Your task to perform on an android device: add a contact in the contacts app Image 0: 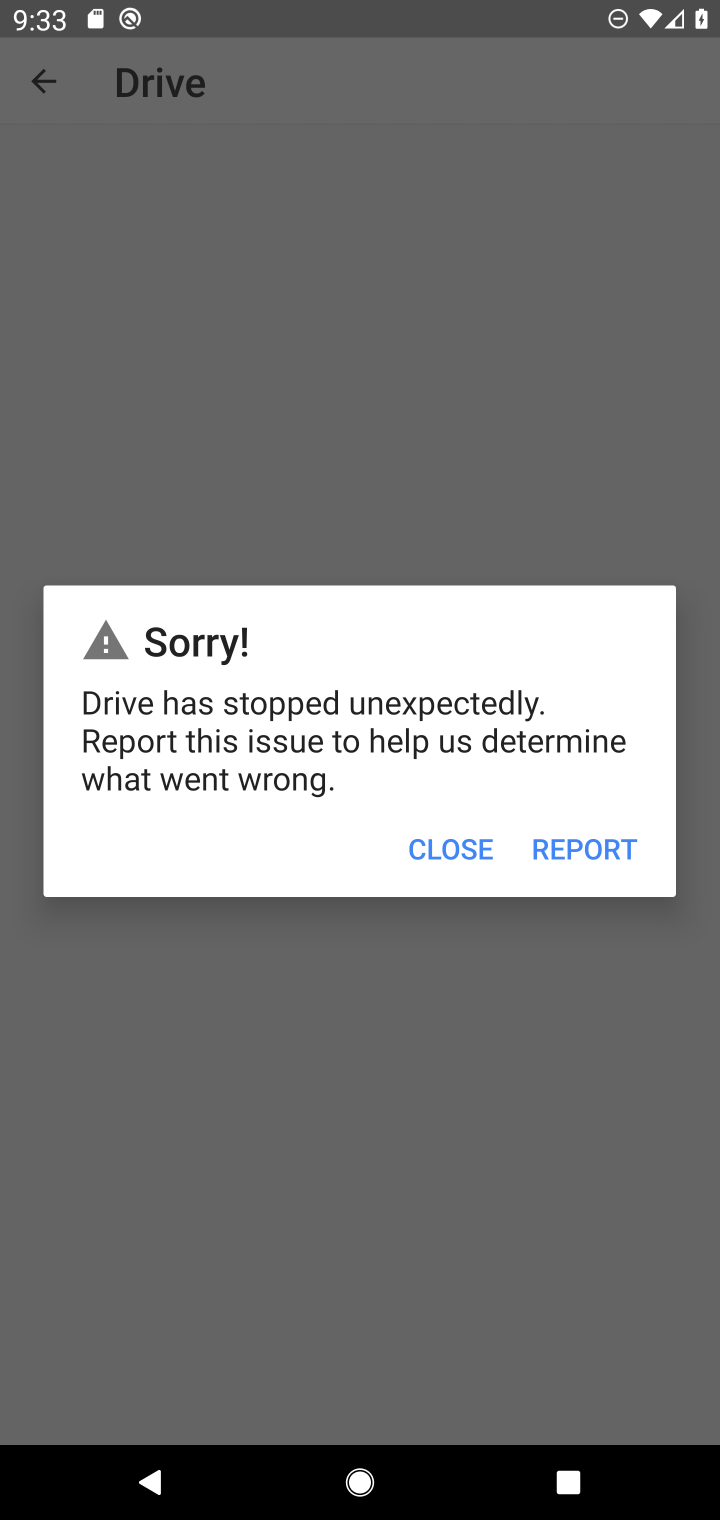
Step 0: press home button
Your task to perform on an android device: add a contact in the contacts app Image 1: 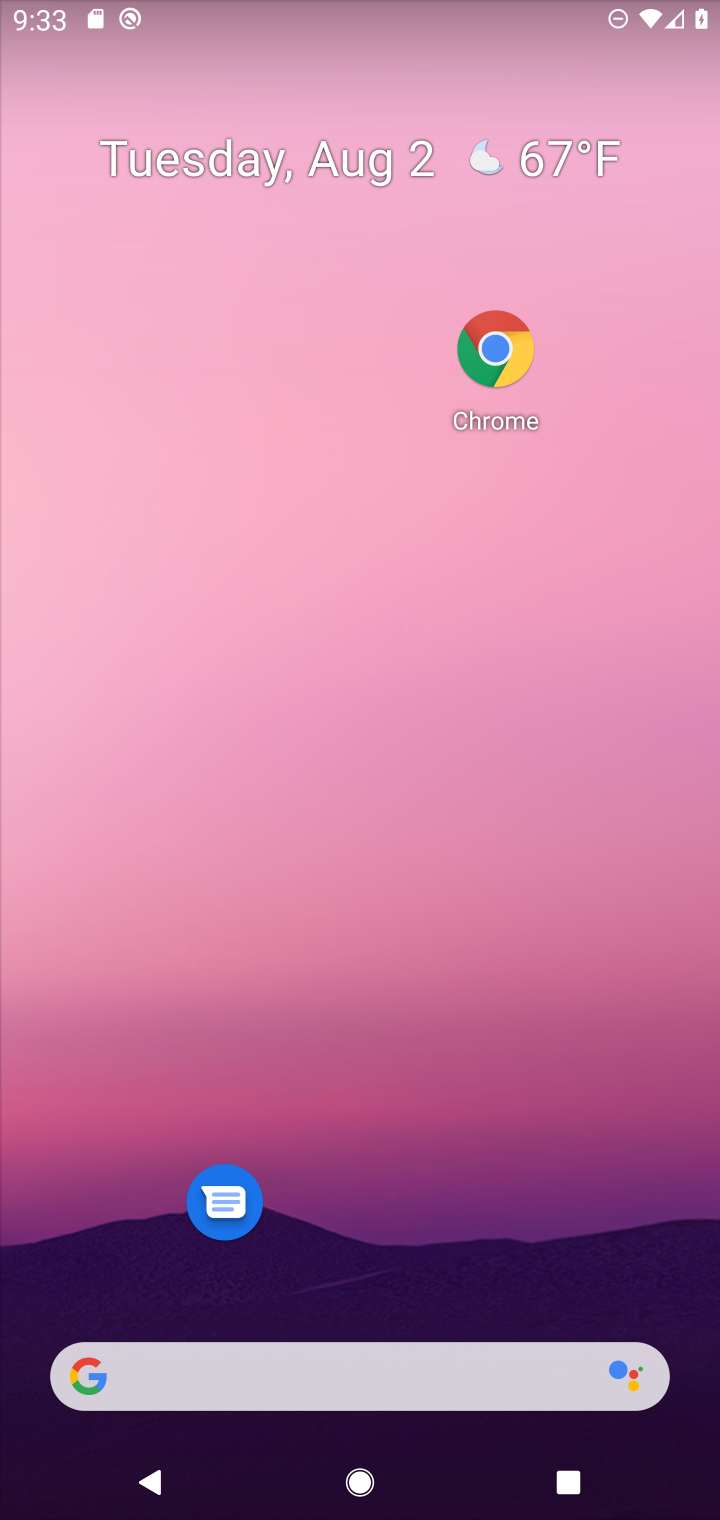
Step 1: drag from (426, 1046) to (417, 16)
Your task to perform on an android device: add a contact in the contacts app Image 2: 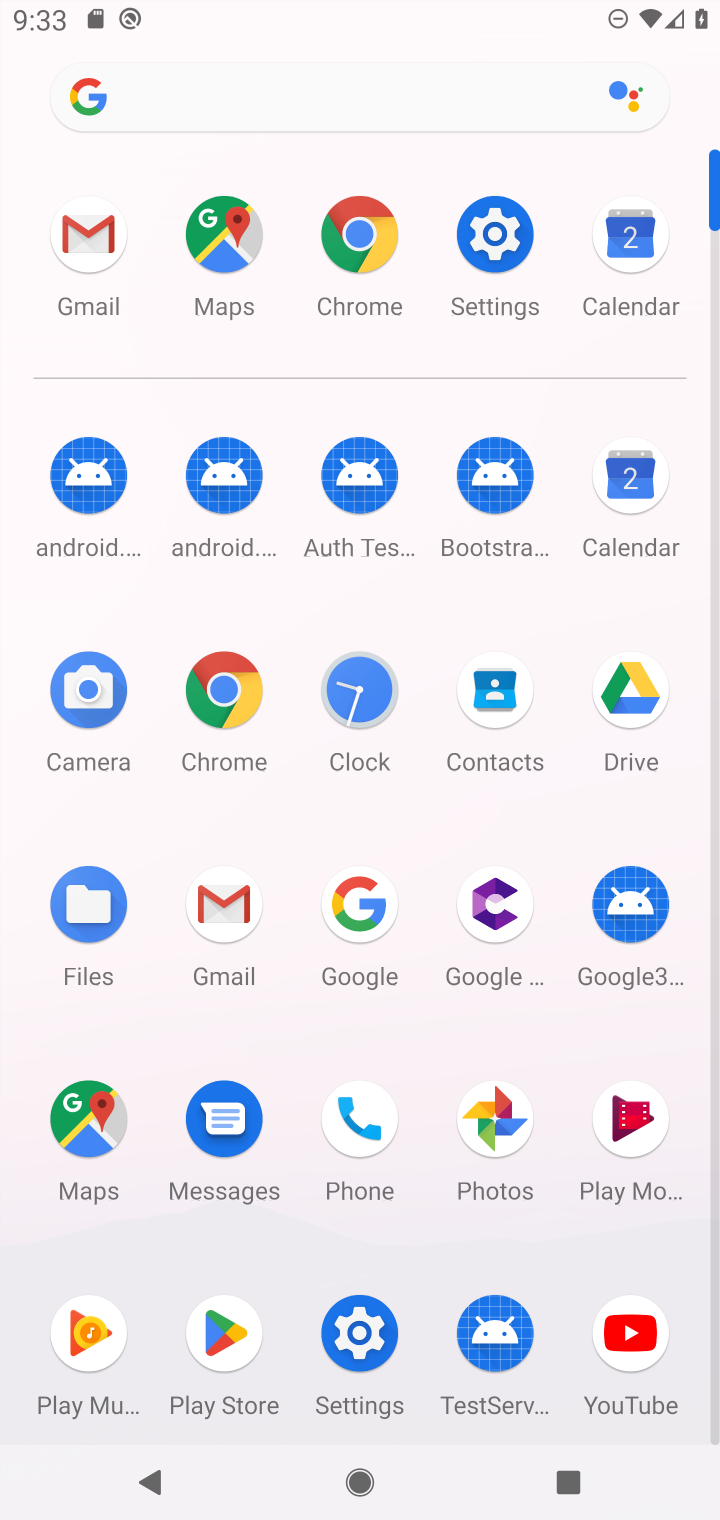
Step 2: click (496, 703)
Your task to perform on an android device: add a contact in the contacts app Image 3: 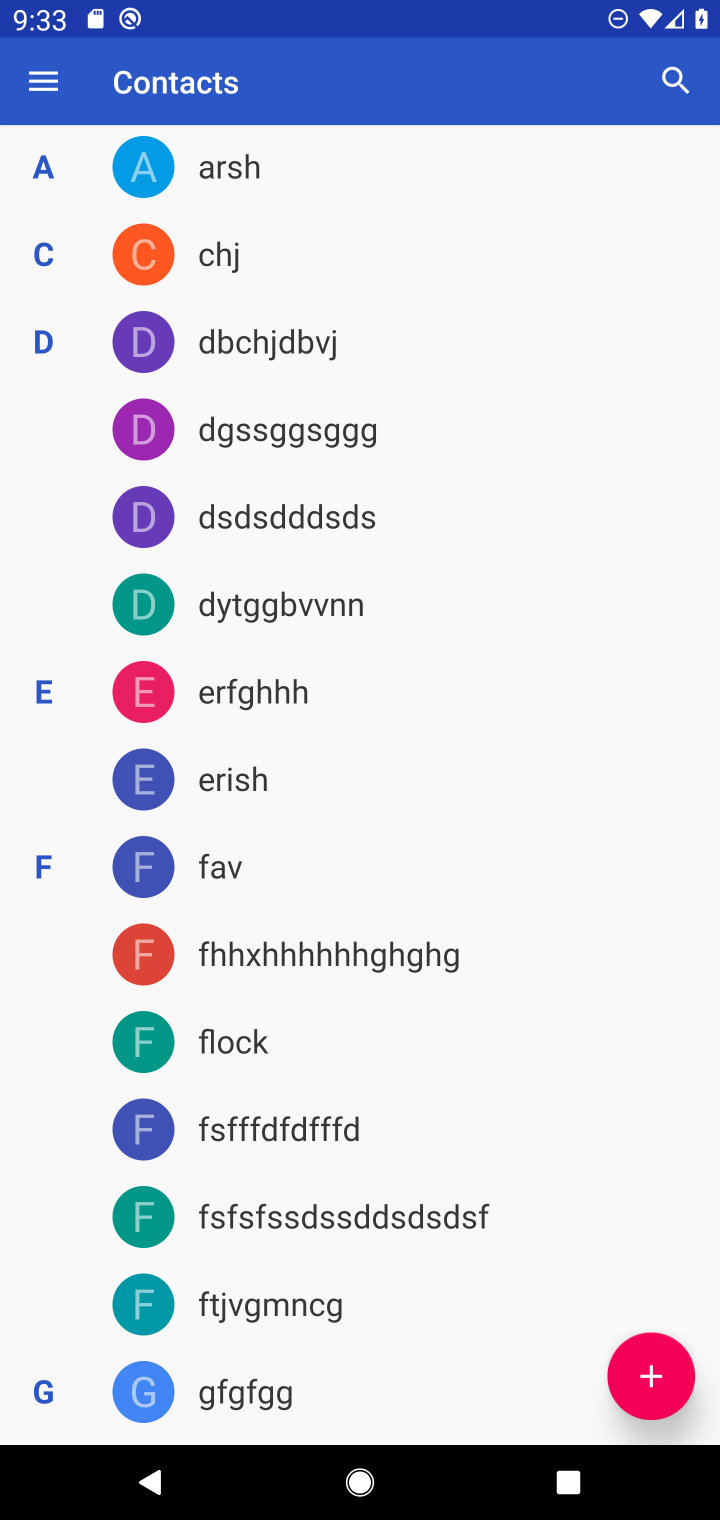
Step 3: click (639, 1377)
Your task to perform on an android device: add a contact in the contacts app Image 4: 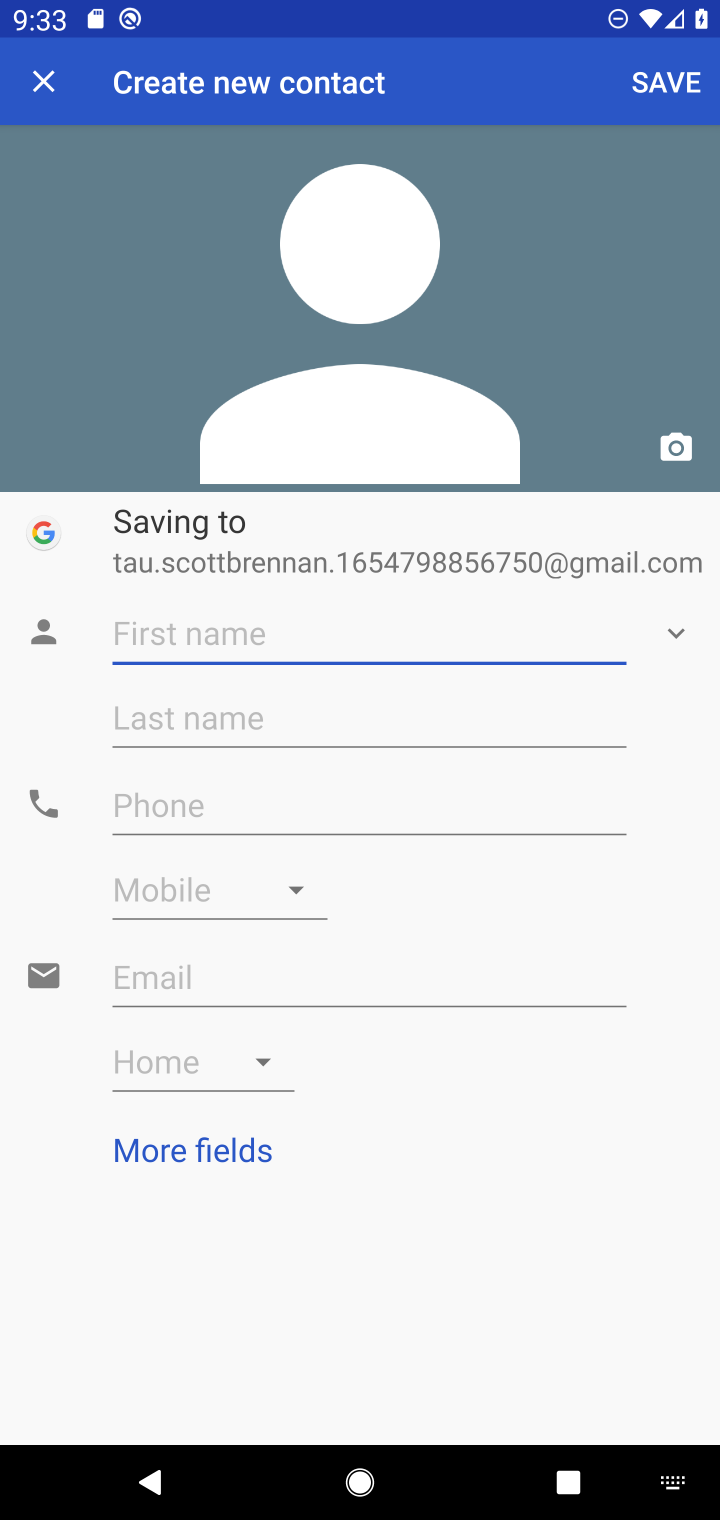
Step 4: click (274, 612)
Your task to perform on an android device: add a contact in the contacts app Image 5: 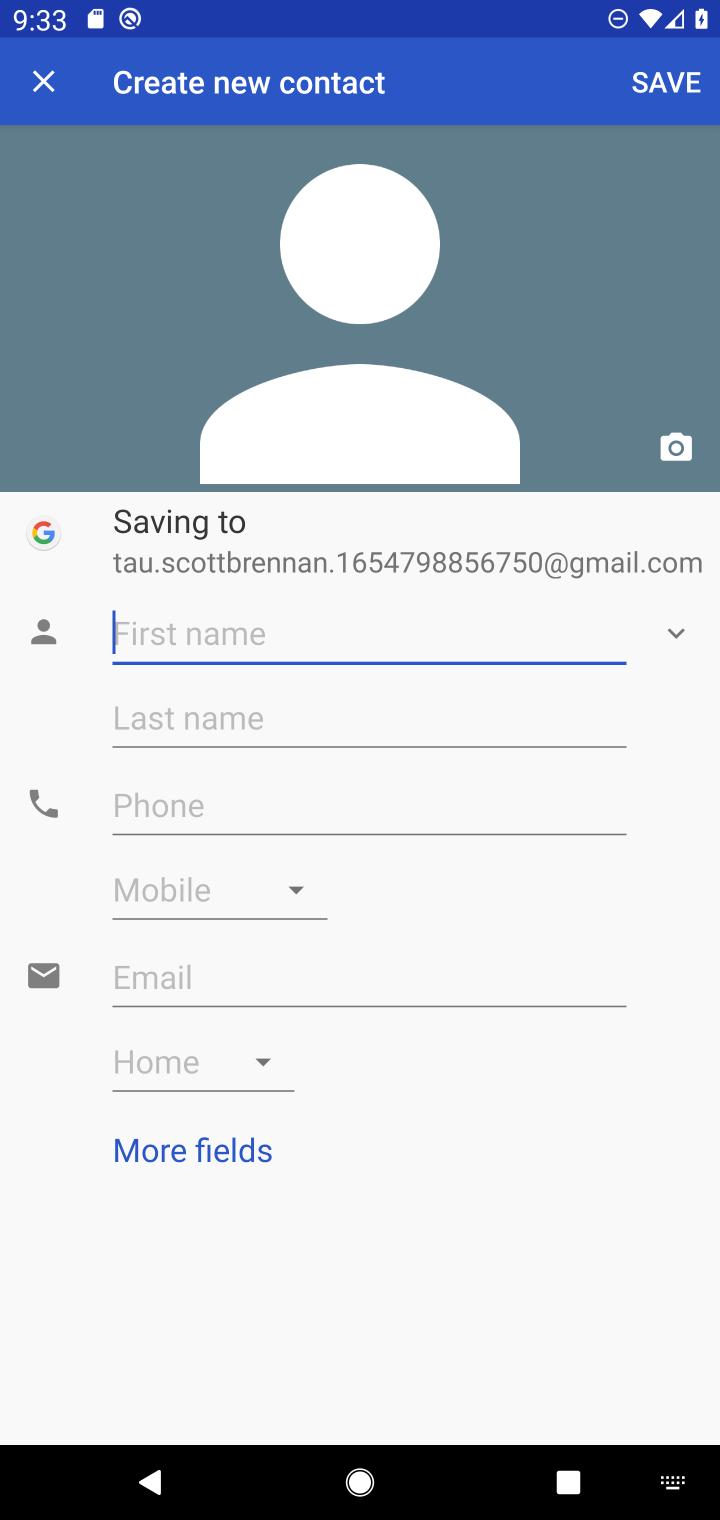
Step 5: type "uyttr"
Your task to perform on an android device: add a contact in the contacts app Image 6: 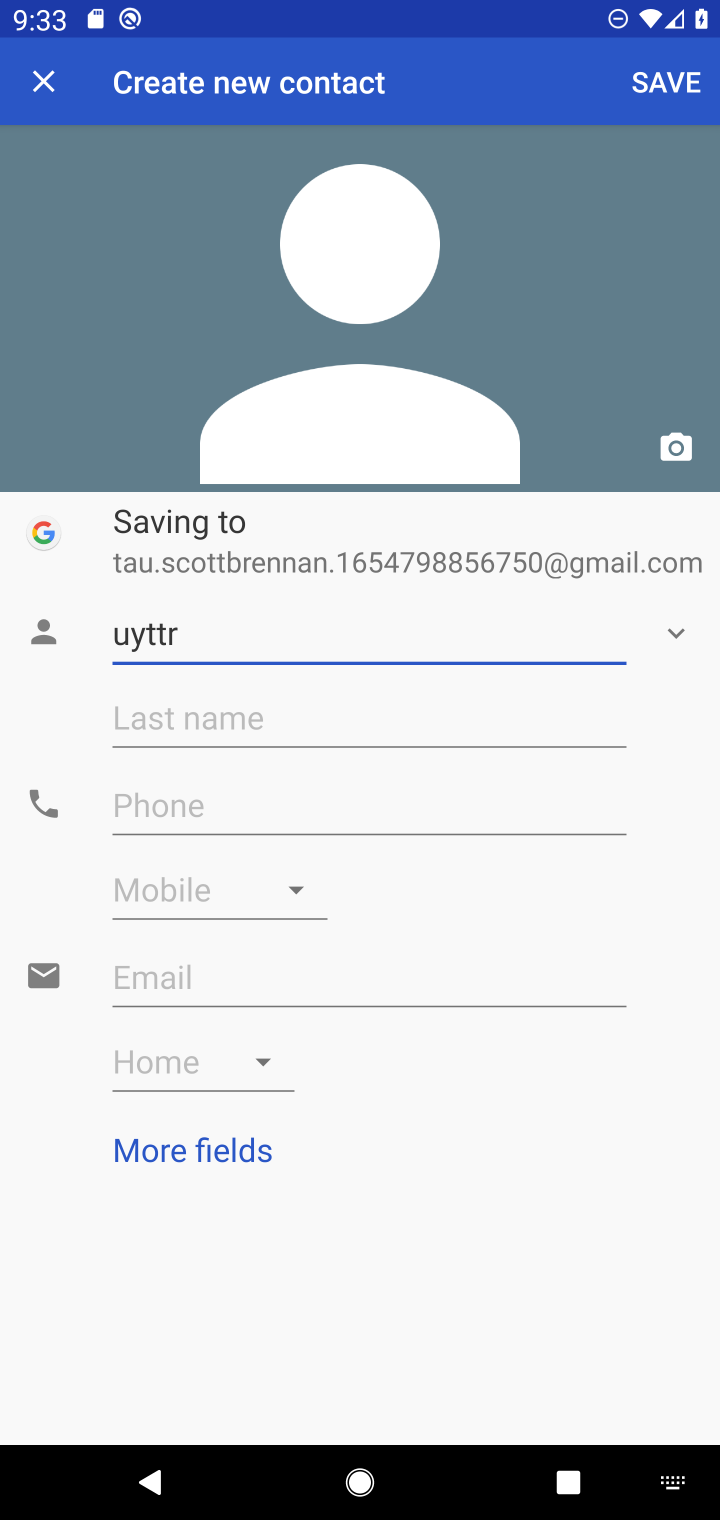
Step 6: click (158, 813)
Your task to perform on an android device: add a contact in the contacts app Image 7: 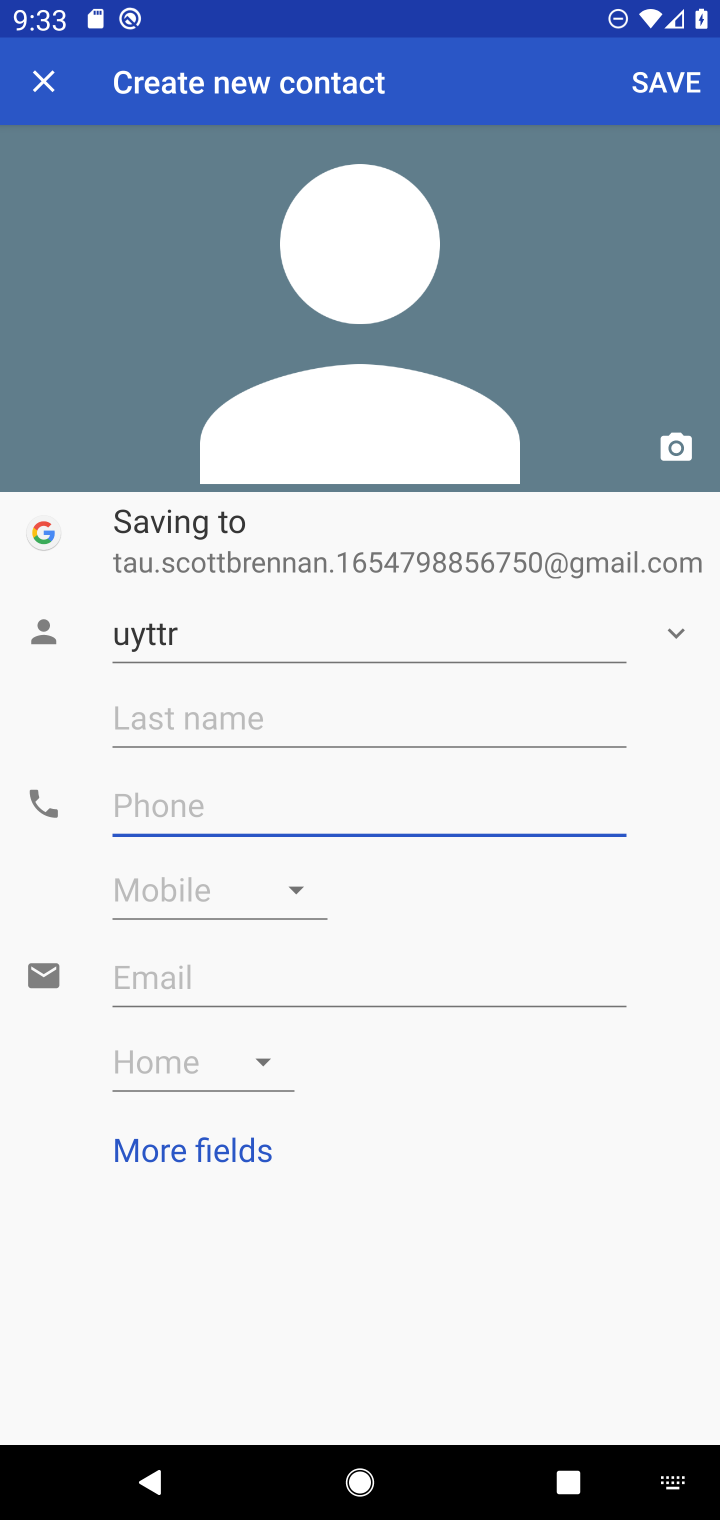
Step 7: type "8765443455"
Your task to perform on an android device: add a contact in the contacts app Image 8: 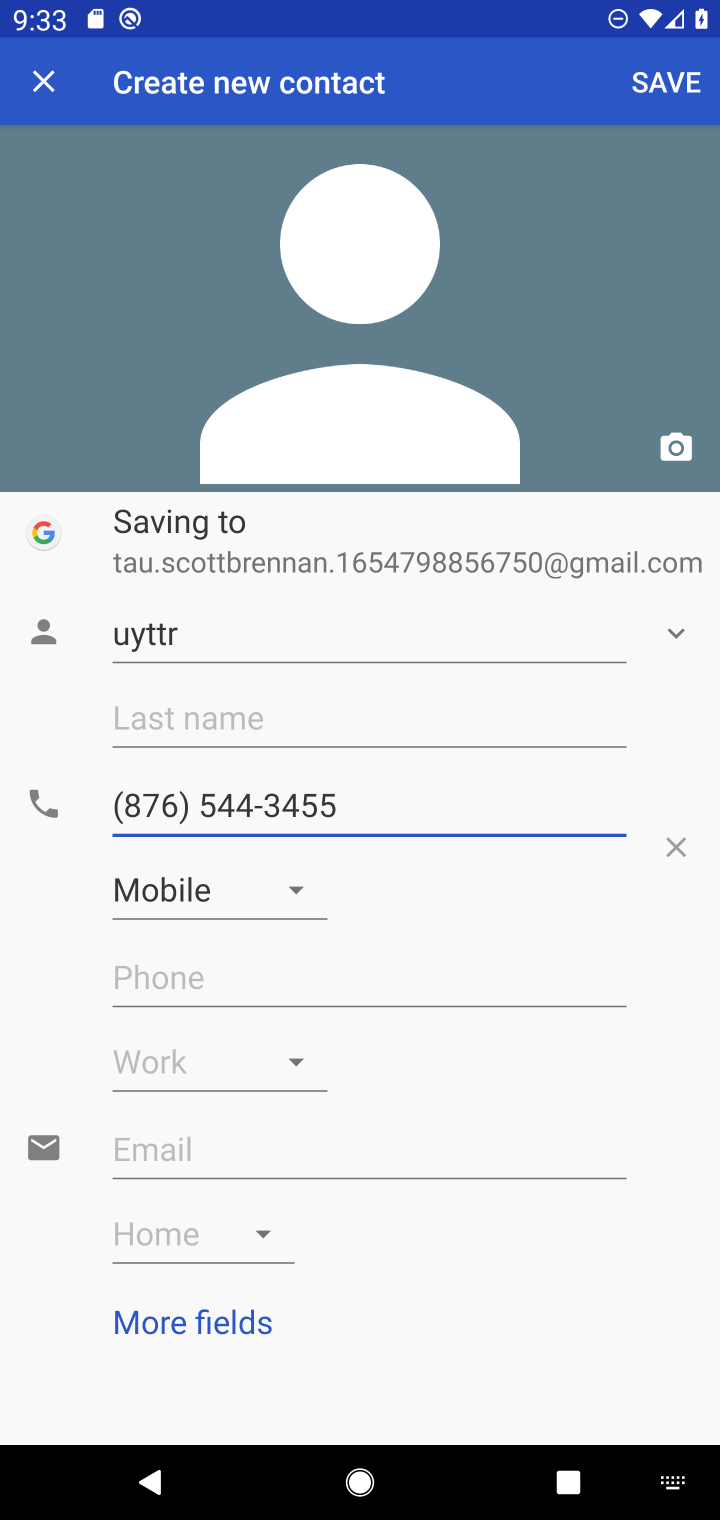
Step 8: click (671, 90)
Your task to perform on an android device: add a contact in the contacts app Image 9: 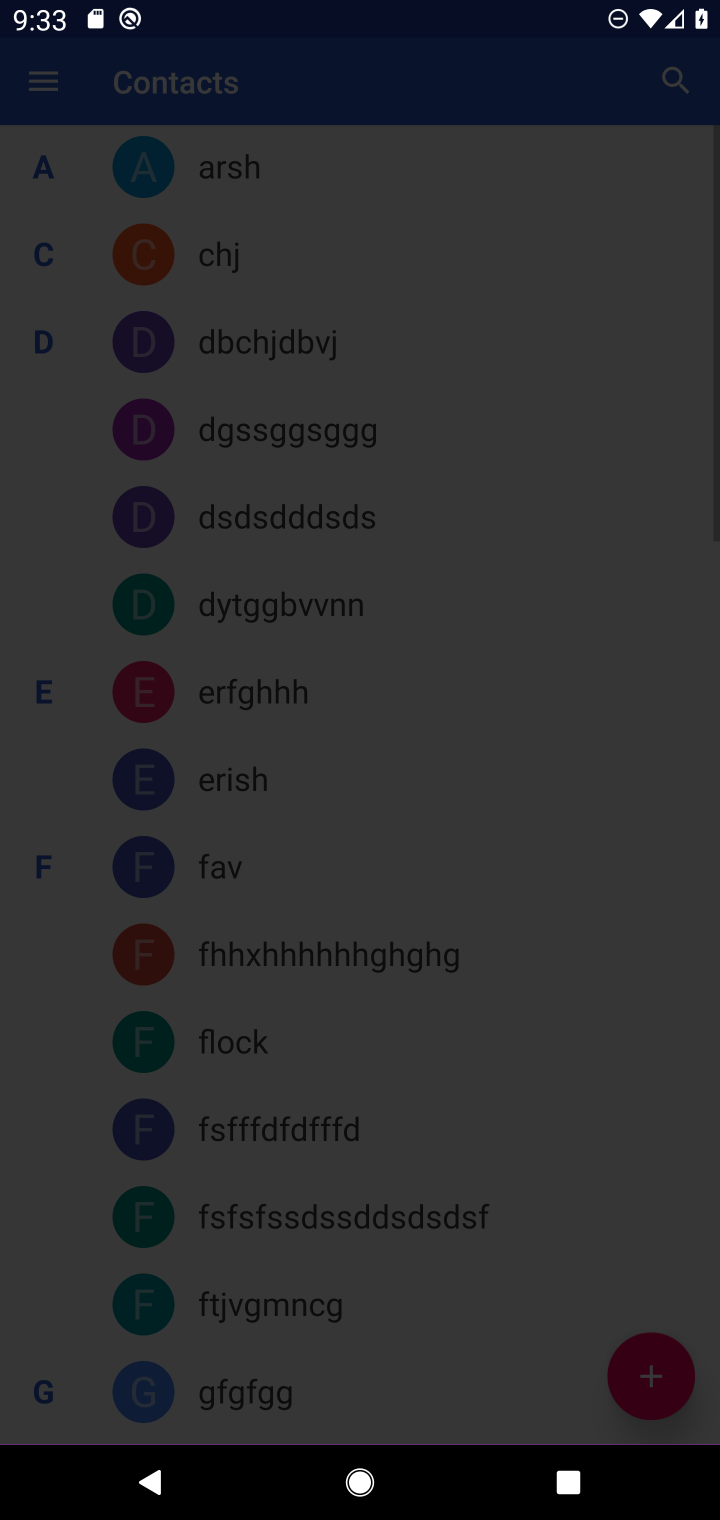
Step 9: task complete